Your task to perform on an android device: change the clock display to show seconds Image 0: 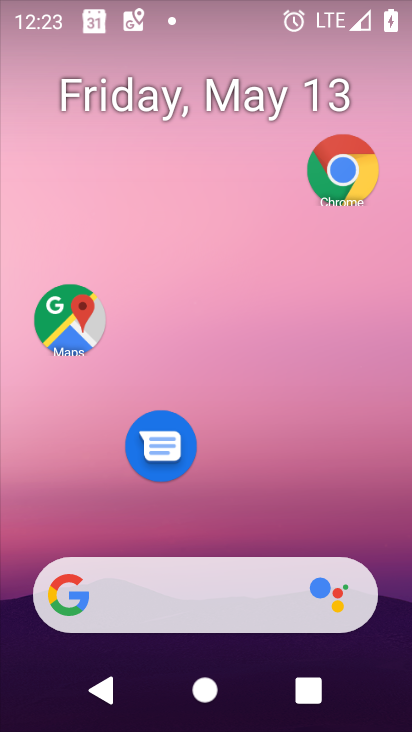
Step 0: drag from (296, 582) to (370, 0)
Your task to perform on an android device: change the clock display to show seconds Image 1: 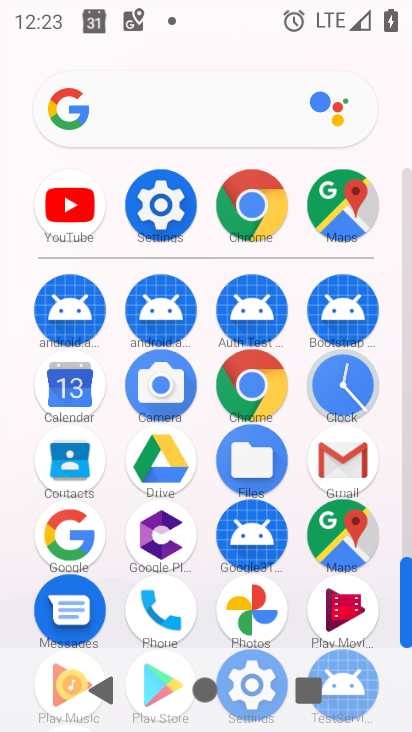
Step 1: click (341, 376)
Your task to perform on an android device: change the clock display to show seconds Image 2: 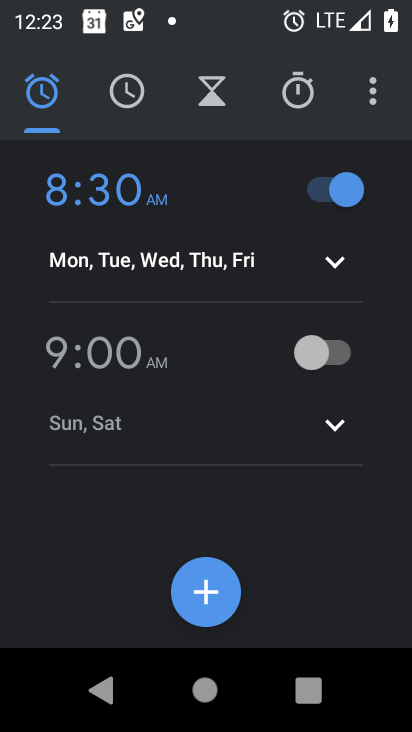
Step 2: click (369, 86)
Your task to perform on an android device: change the clock display to show seconds Image 3: 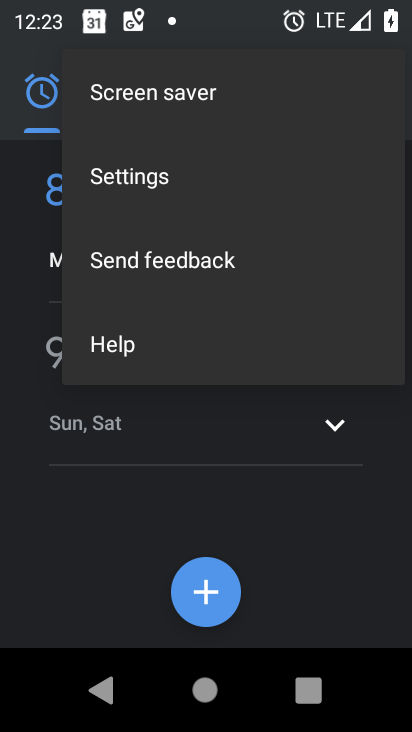
Step 3: click (237, 192)
Your task to perform on an android device: change the clock display to show seconds Image 4: 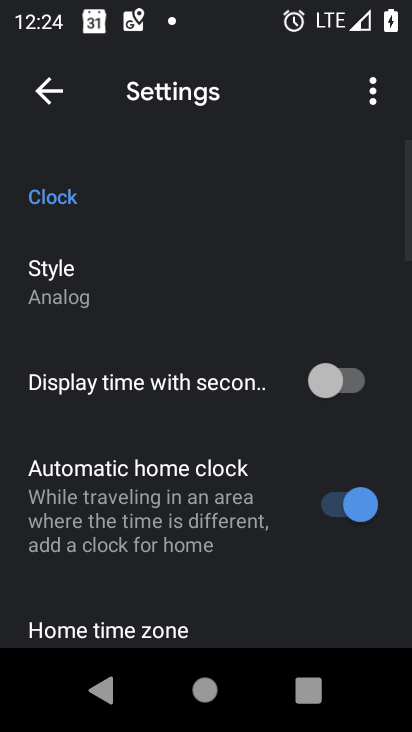
Step 4: drag from (229, 384) to (206, 253)
Your task to perform on an android device: change the clock display to show seconds Image 5: 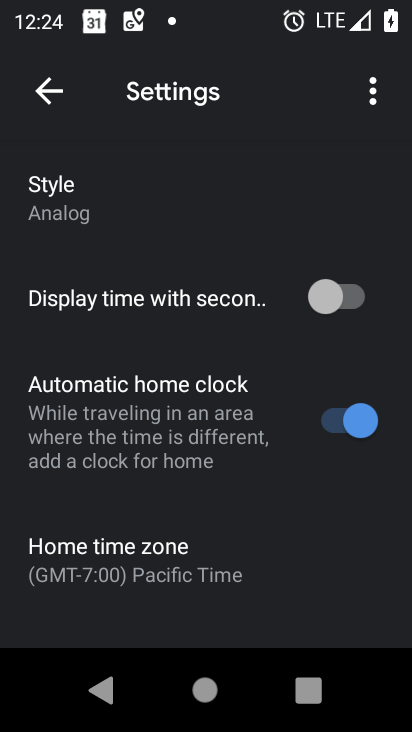
Step 5: click (118, 221)
Your task to perform on an android device: change the clock display to show seconds Image 6: 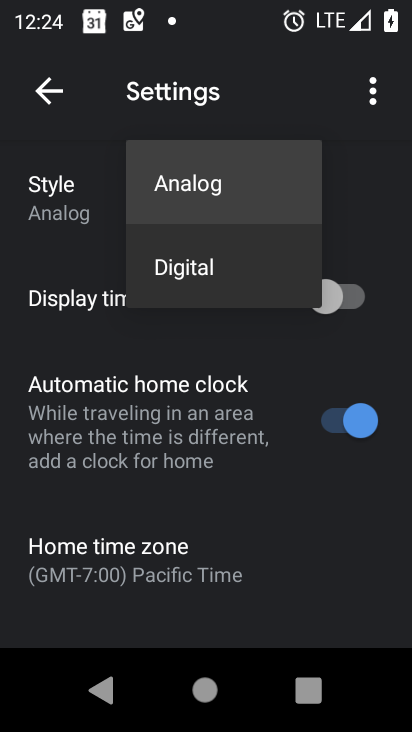
Step 6: click (377, 163)
Your task to perform on an android device: change the clock display to show seconds Image 7: 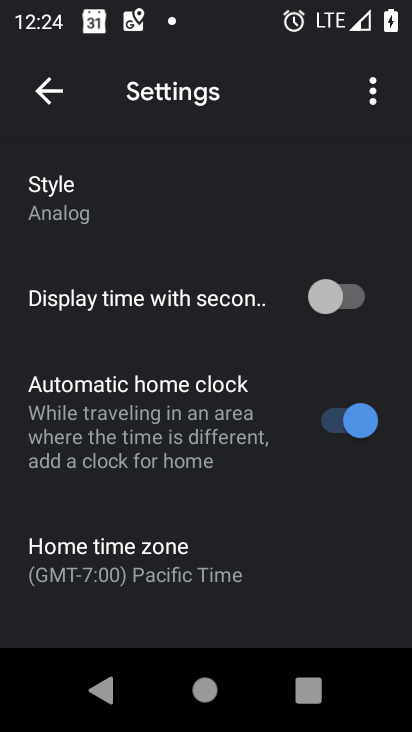
Step 7: click (325, 70)
Your task to perform on an android device: change the clock display to show seconds Image 8: 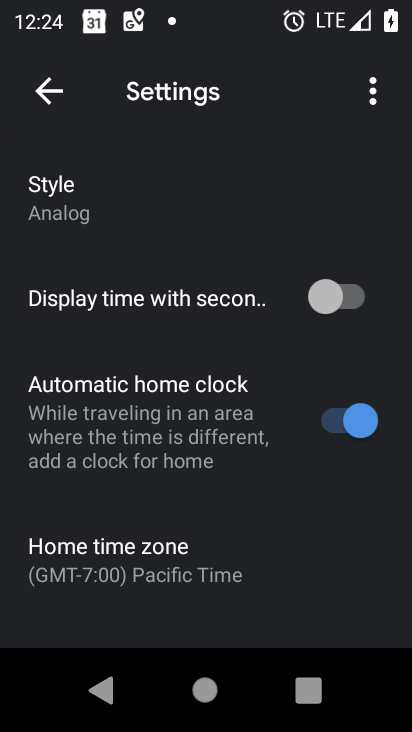
Step 8: click (360, 297)
Your task to perform on an android device: change the clock display to show seconds Image 9: 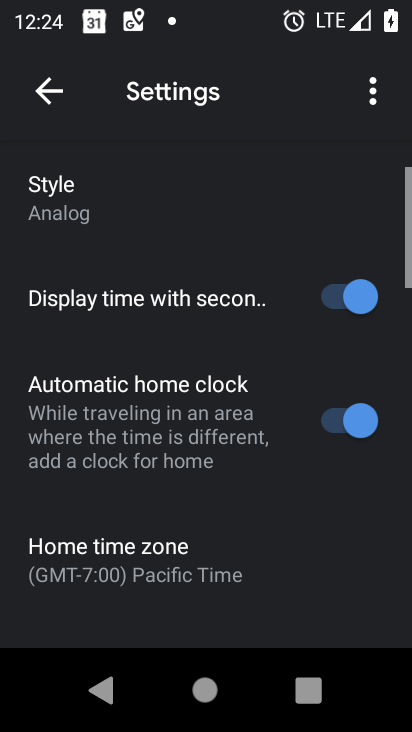
Step 9: task complete